Your task to perform on an android device: change text size in settings app Image 0: 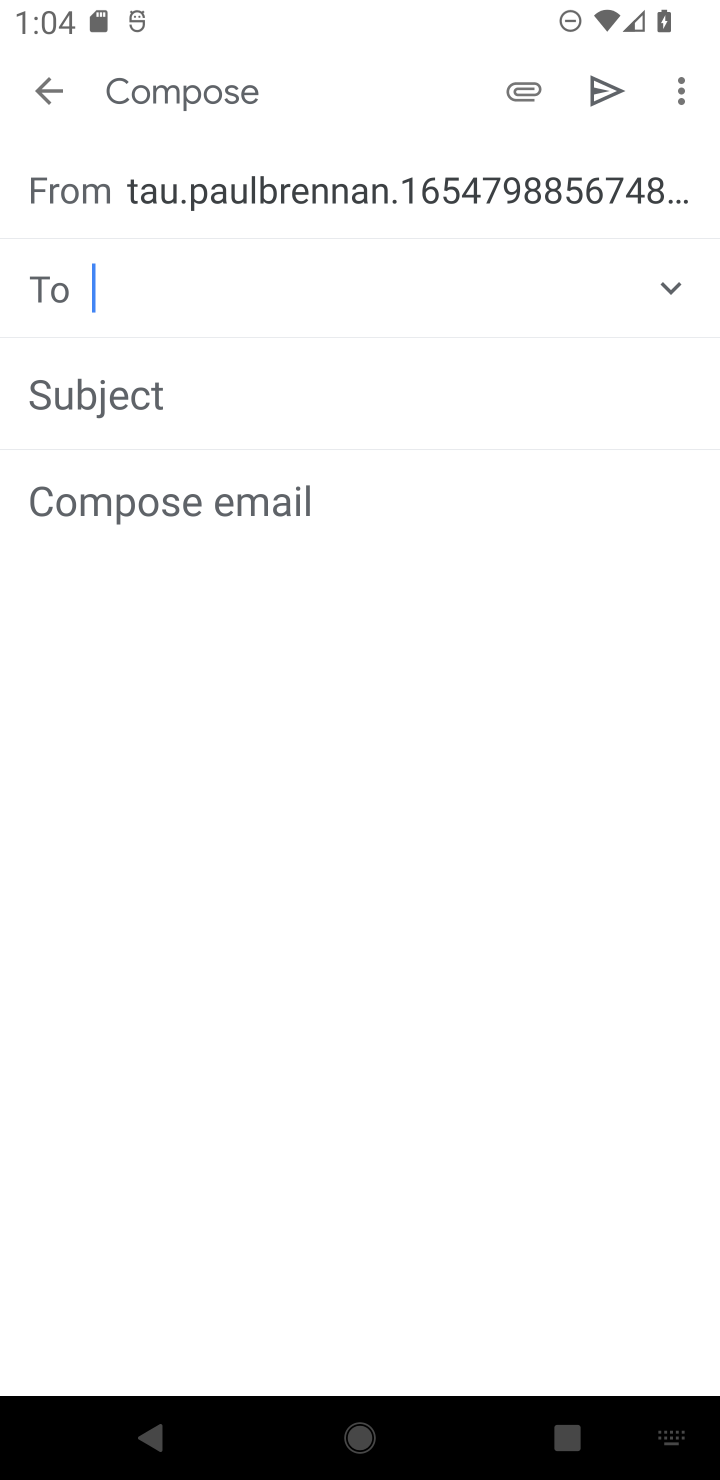
Step 0: press home button
Your task to perform on an android device: change text size in settings app Image 1: 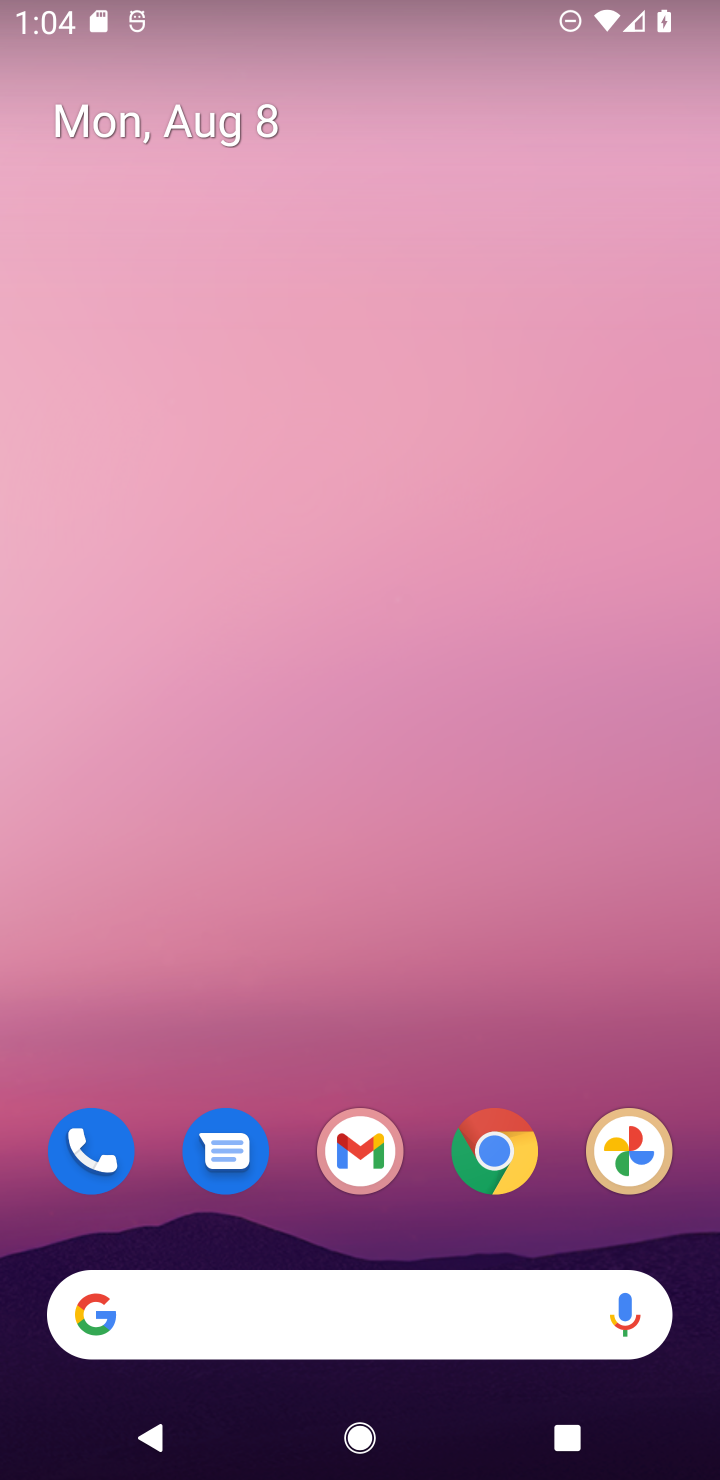
Step 1: drag from (431, 475) to (431, 337)
Your task to perform on an android device: change text size in settings app Image 2: 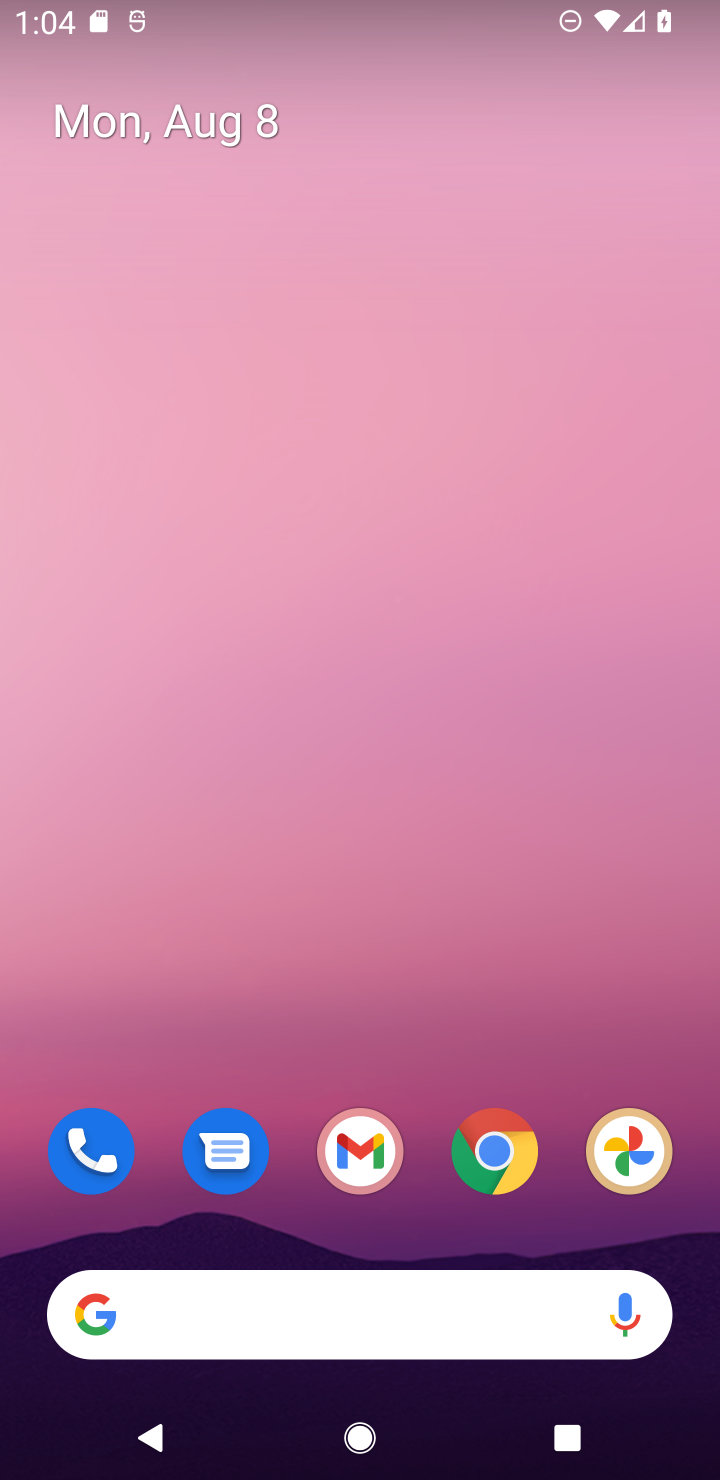
Step 2: drag from (367, 706) to (367, 397)
Your task to perform on an android device: change text size in settings app Image 3: 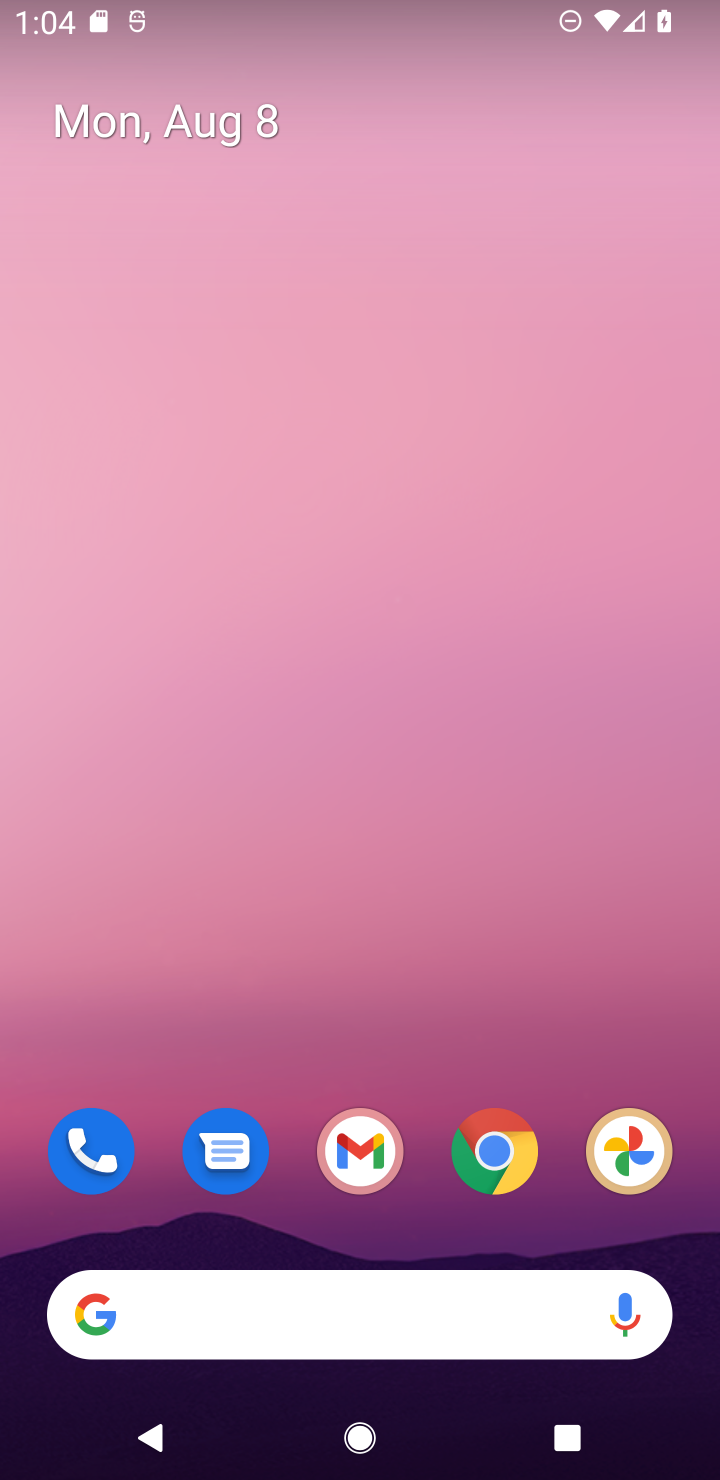
Step 3: drag from (255, 787) to (267, 401)
Your task to perform on an android device: change text size in settings app Image 4: 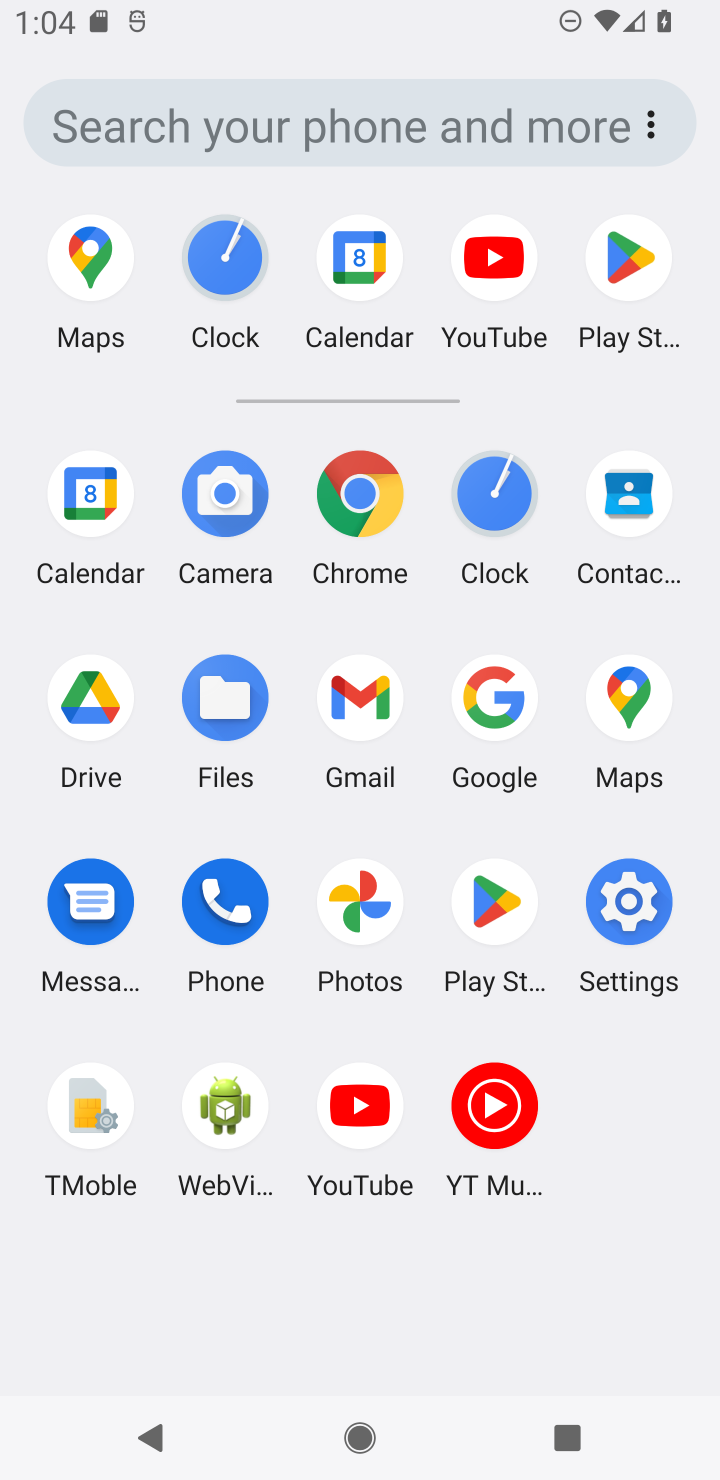
Step 4: click (618, 896)
Your task to perform on an android device: change text size in settings app Image 5: 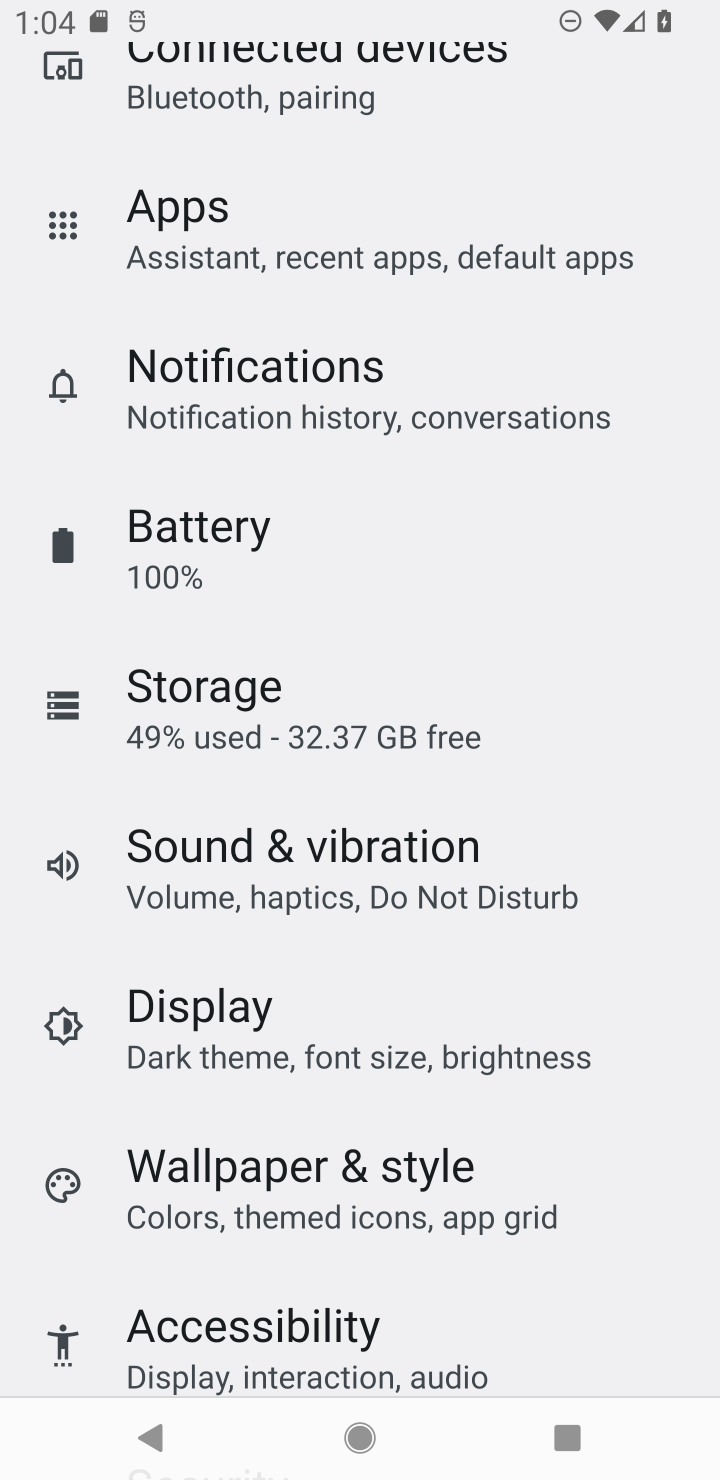
Step 5: drag from (265, 264) to (256, 1253)
Your task to perform on an android device: change text size in settings app Image 6: 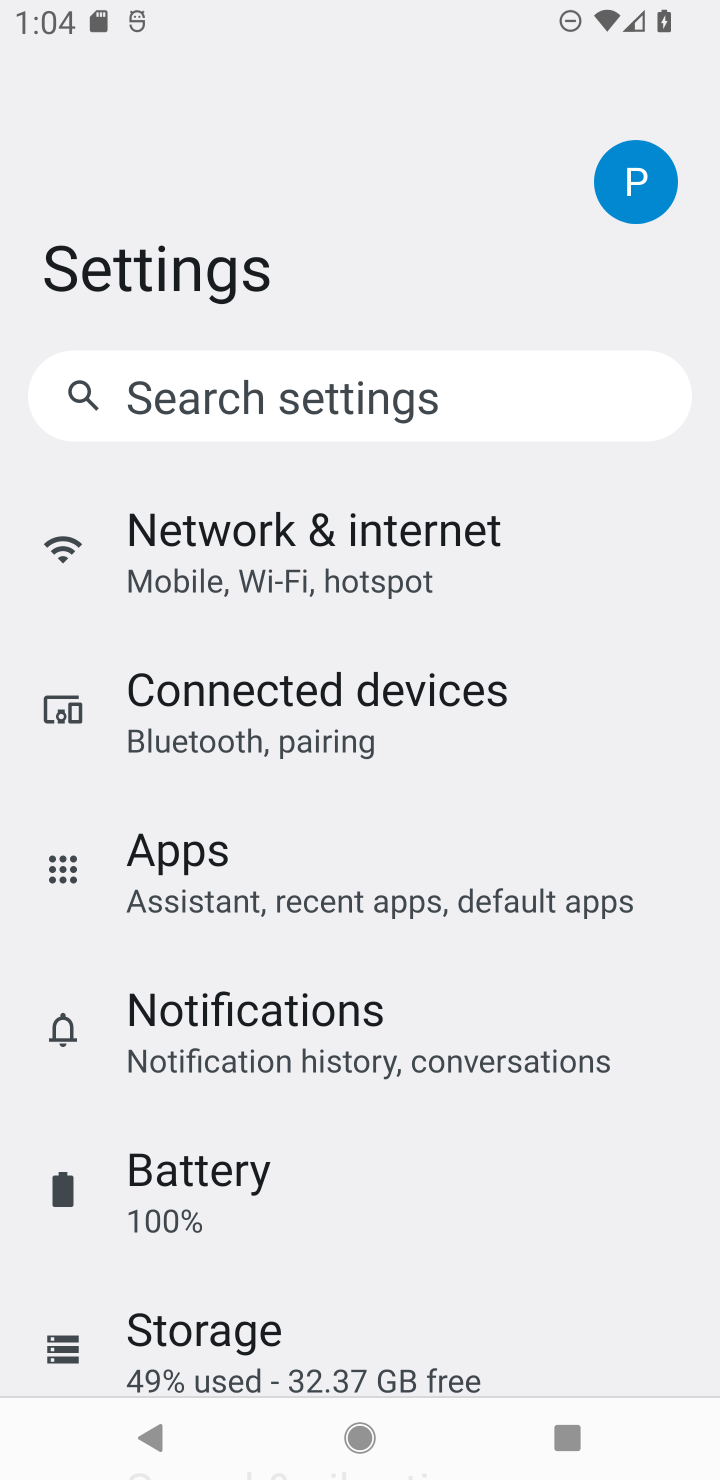
Step 6: drag from (198, 1339) to (176, 598)
Your task to perform on an android device: change text size in settings app Image 7: 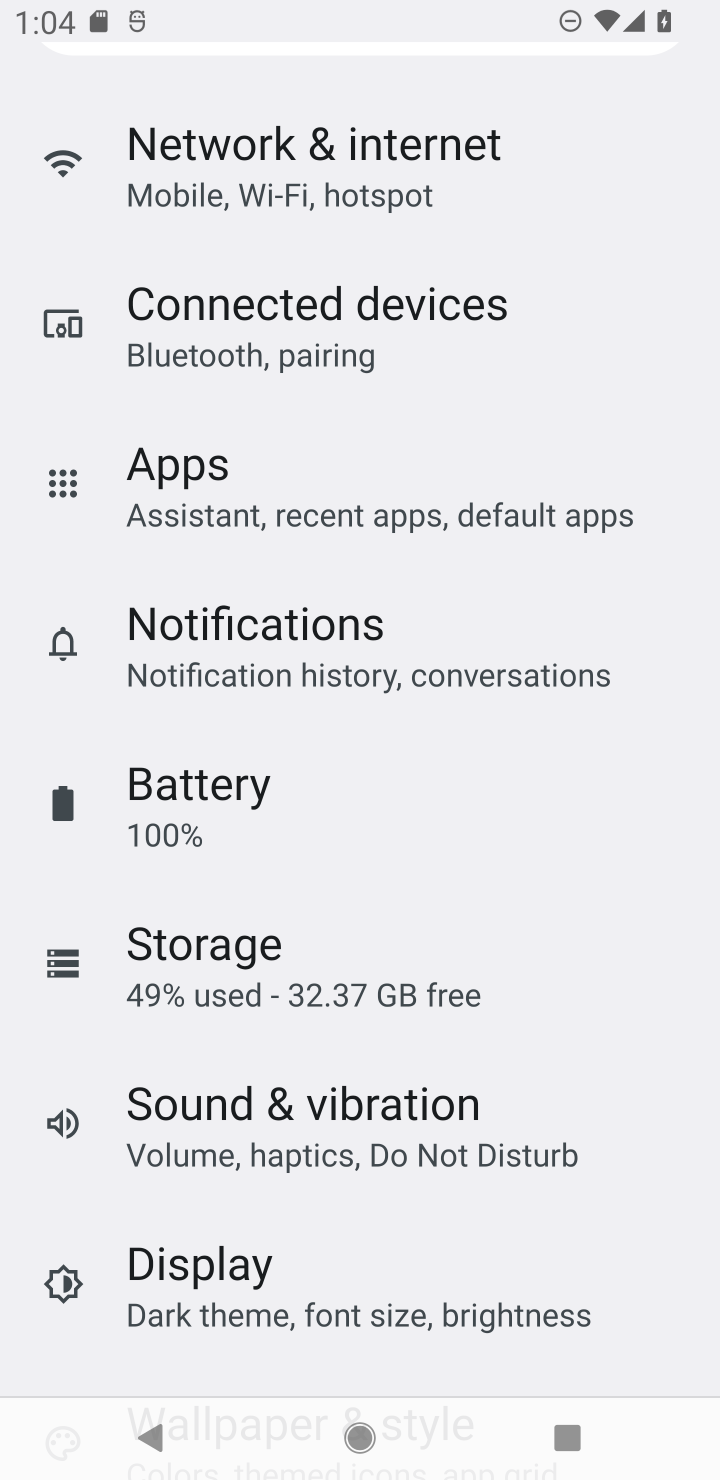
Step 7: drag from (259, 1319) to (259, 696)
Your task to perform on an android device: change text size in settings app Image 8: 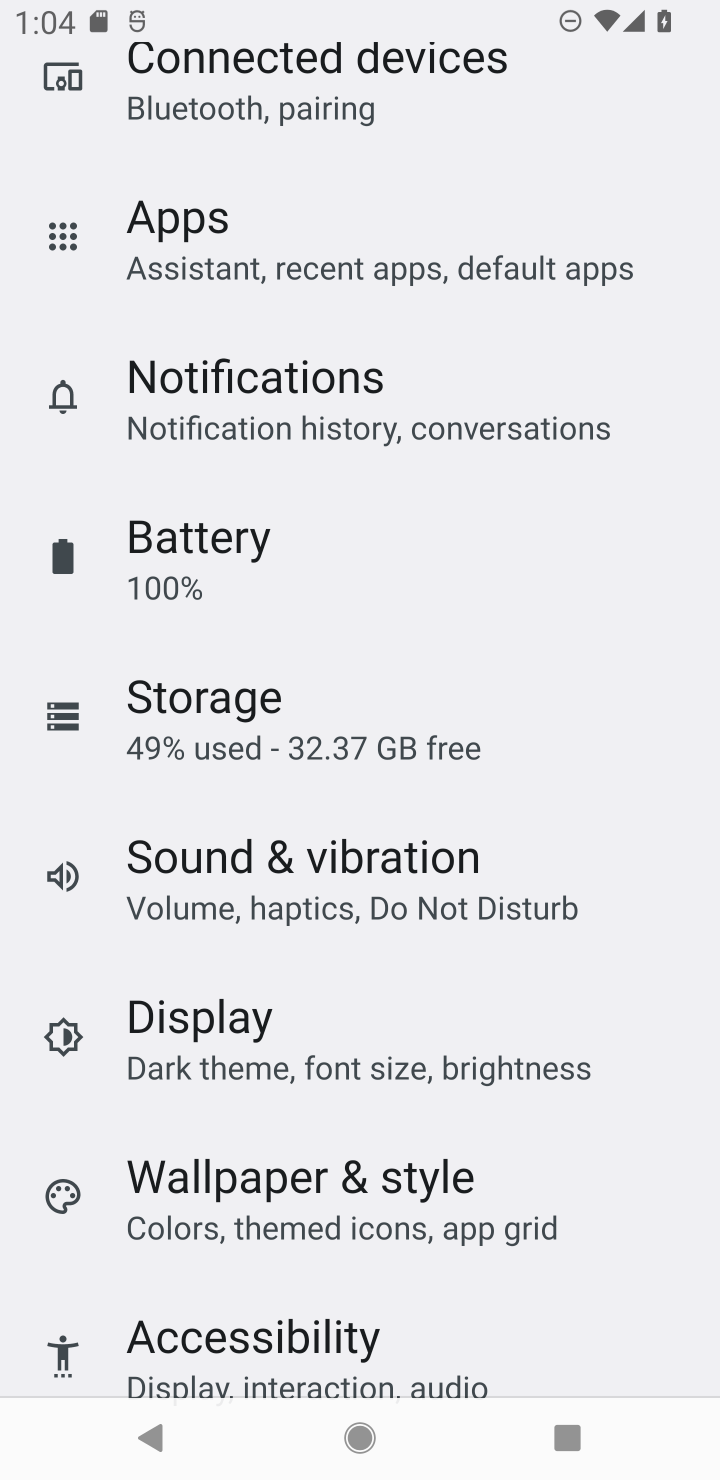
Step 8: click (201, 1365)
Your task to perform on an android device: change text size in settings app Image 9: 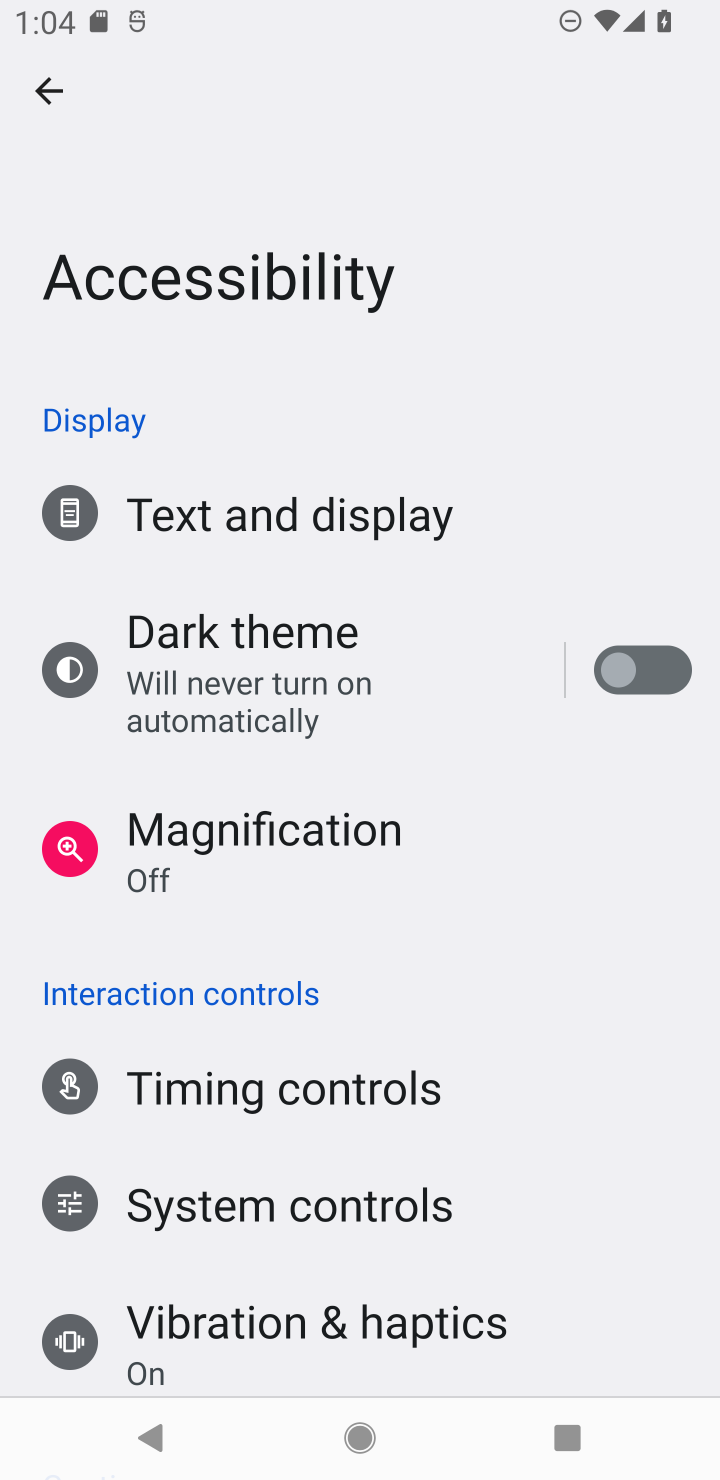
Step 9: click (294, 514)
Your task to perform on an android device: change text size in settings app Image 10: 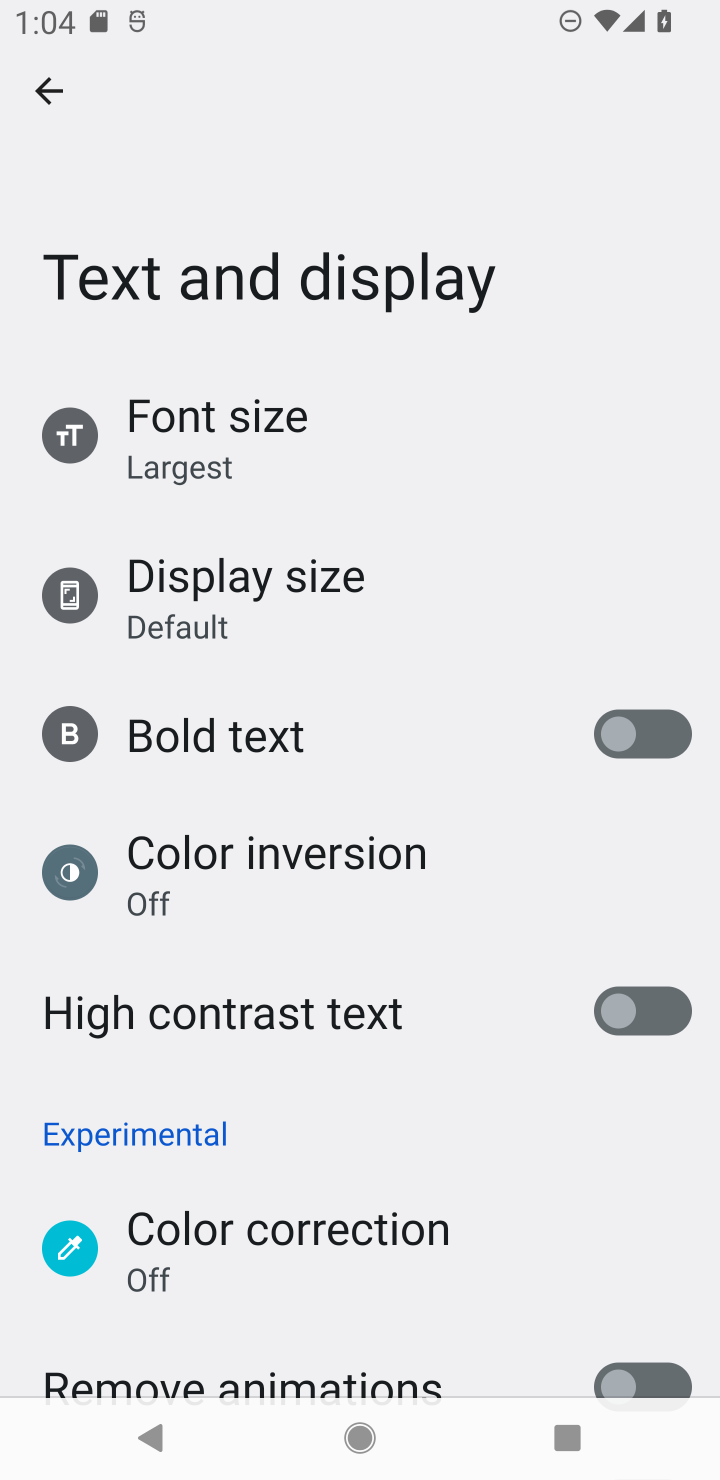
Step 10: click (211, 434)
Your task to perform on an android device: change text size in settings app Image 11: 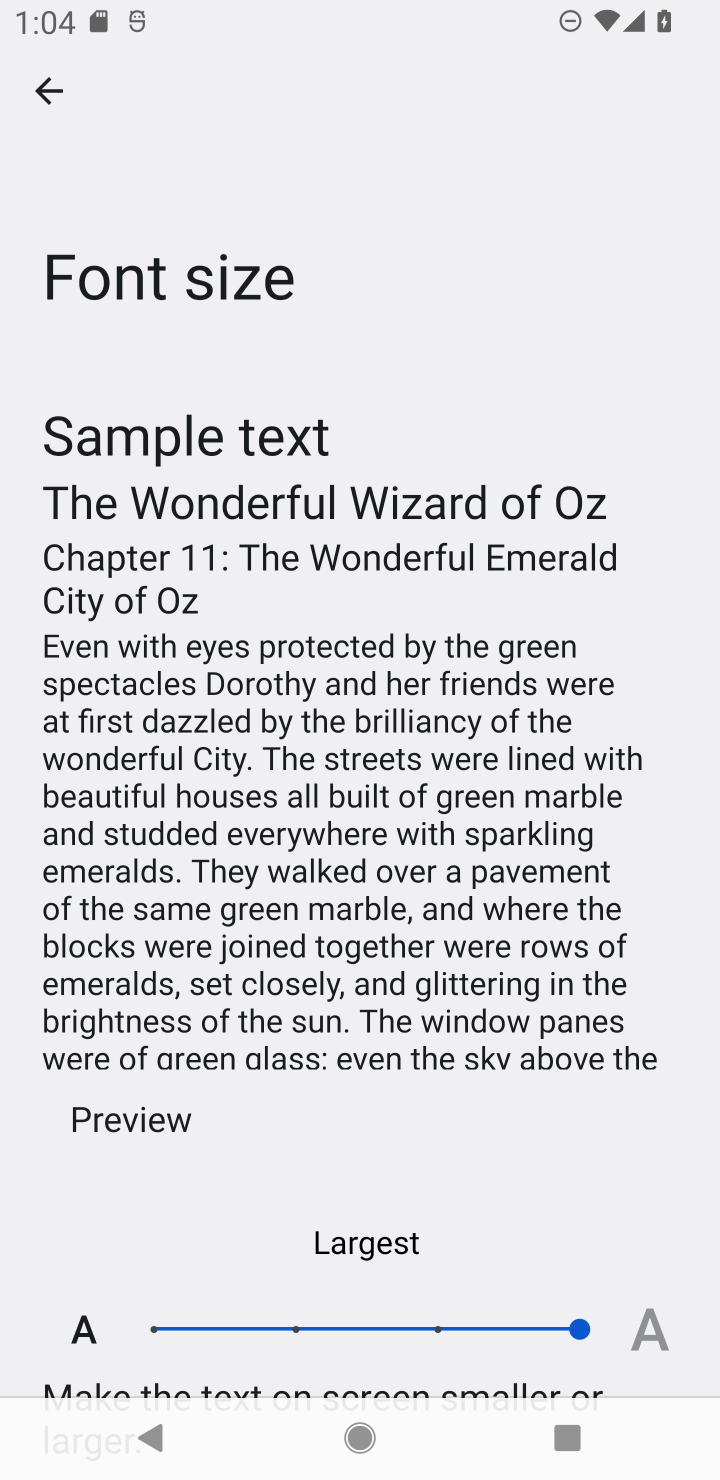
Step 11: click (294, 1319)
Your task to perform on an android device: change text size in settings app Image 12: 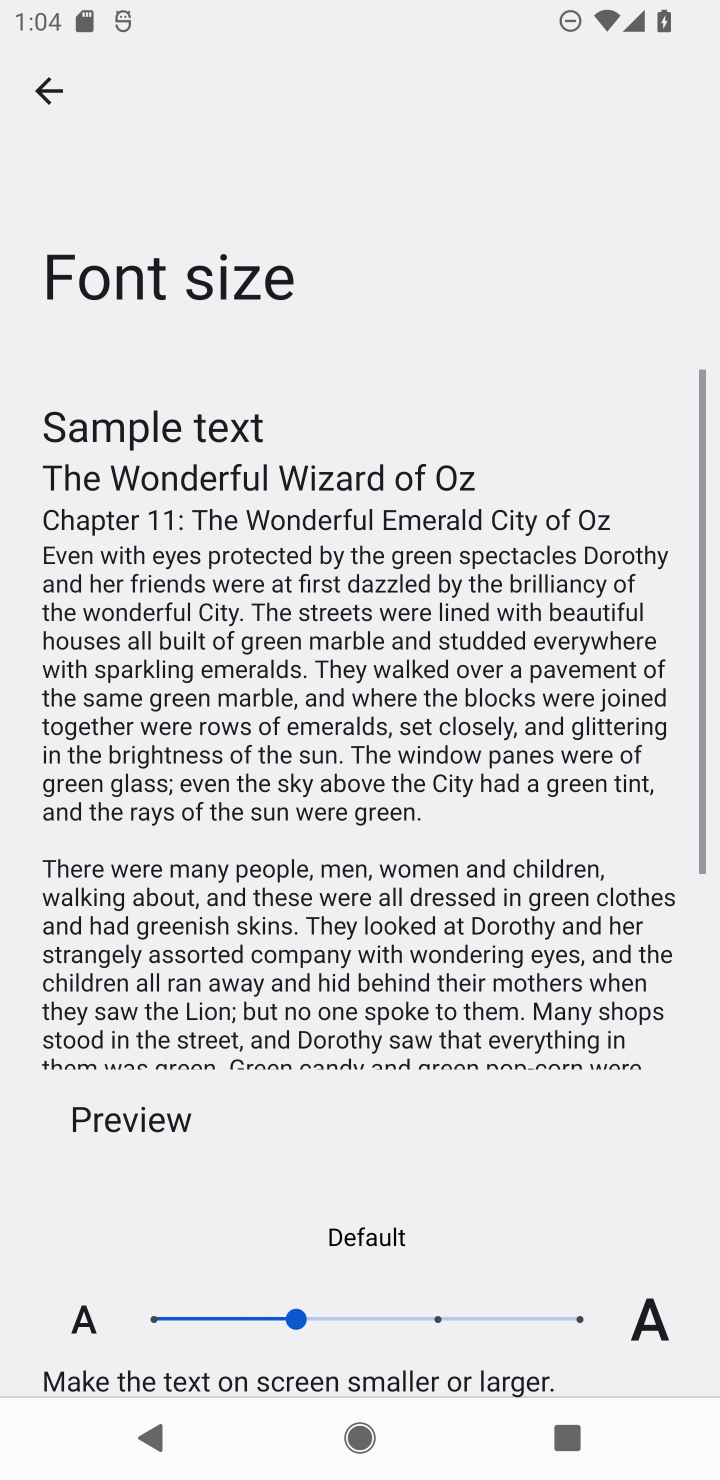
Step 12: task complete